Your task to perform on an android device: Open Chrome and go to settings Image 0: 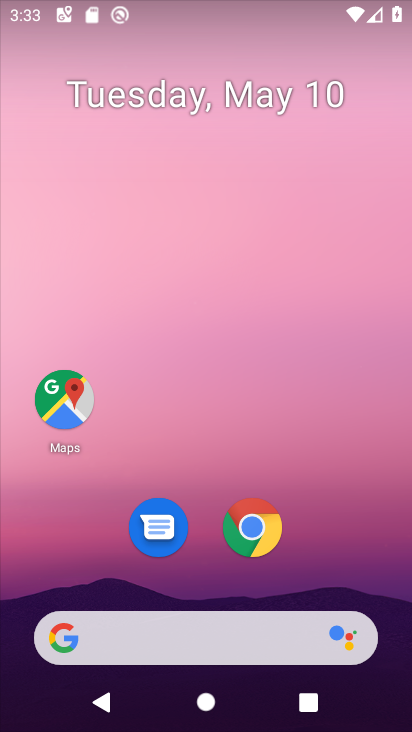
Step 0: click (250, 524)
Your task to perform on an android device: Open Chrome and go to settings Image 1: 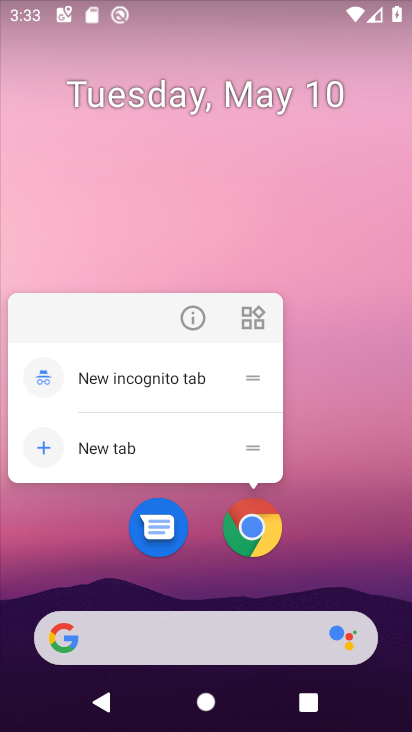
Step 1: click (250, 524)
Your task to perform on an android device: Open Chrome and go to settings Image 2: 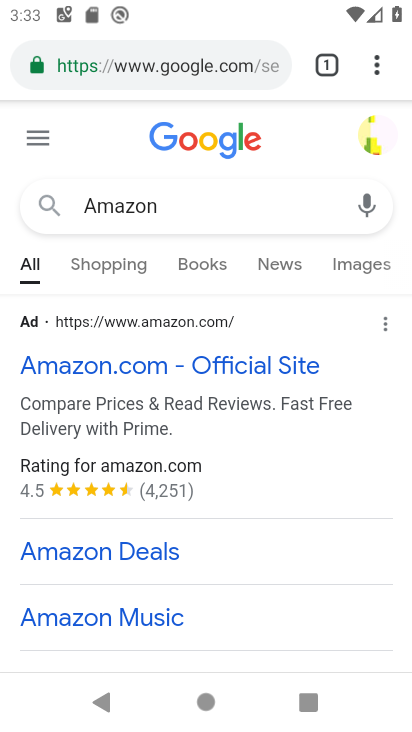
Step 2: click (373, 61)
Your task to perform on an android device: Open Chrome and go to settings Image 3: 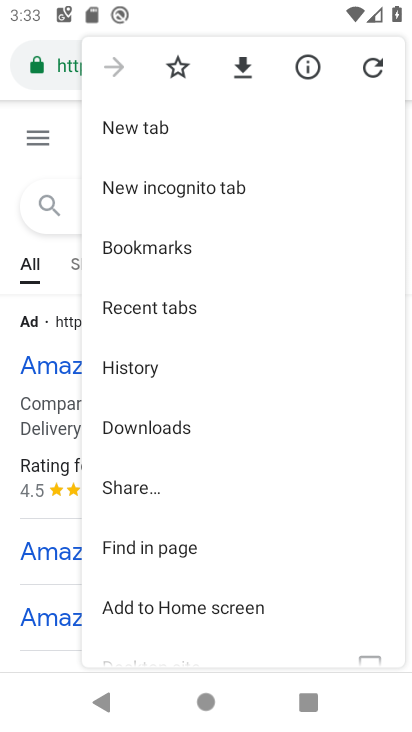
Step 3: drag from (273, 575) to (256, 357)
Your task to perform on an android device: Open Chrome and go to settings Image 4: 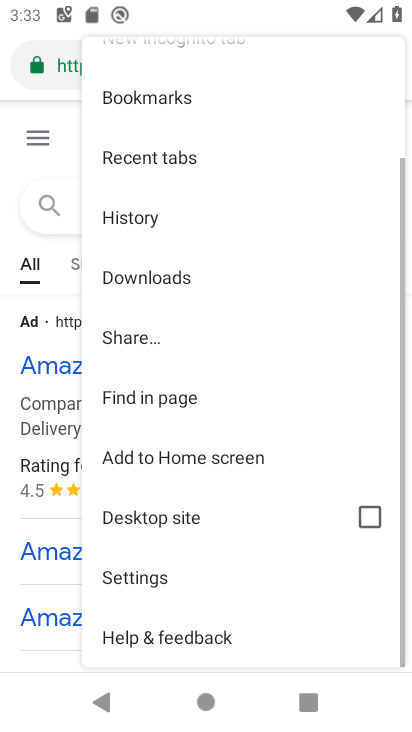
Step 4: click (141, 580)
Your task to perform on an android device: Open Chrome and go to settings Image 5: 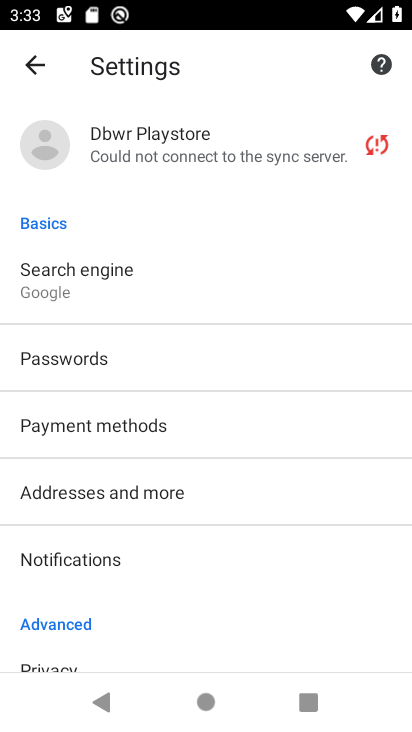
Step 5: task complete